Your task to perform on an android device: Open Amazon Image 0: 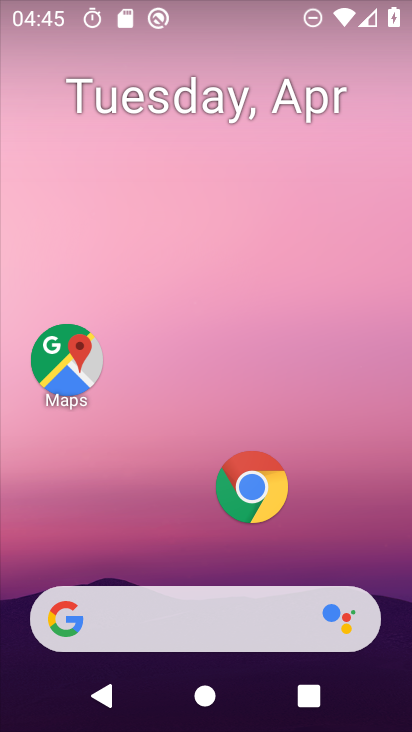
Step 0: drag from (207, 397) to (284, 56)
Your task to perform on an android device: Open Amazon Image 1: 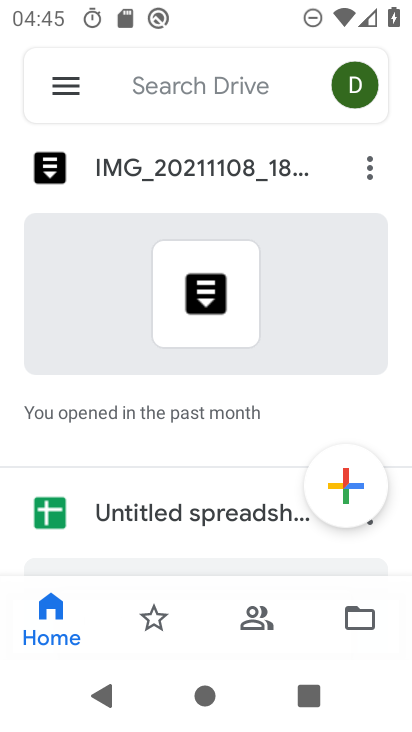
Step 1: press home button
Your task to perform on an android device: Open Amazon Image 2: 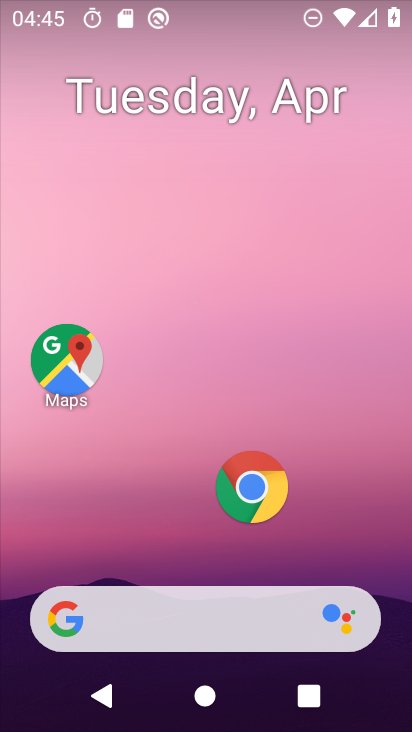
Step 2: click (249, 489)
Your task to perform on an android device: Open Amazon Image 3: 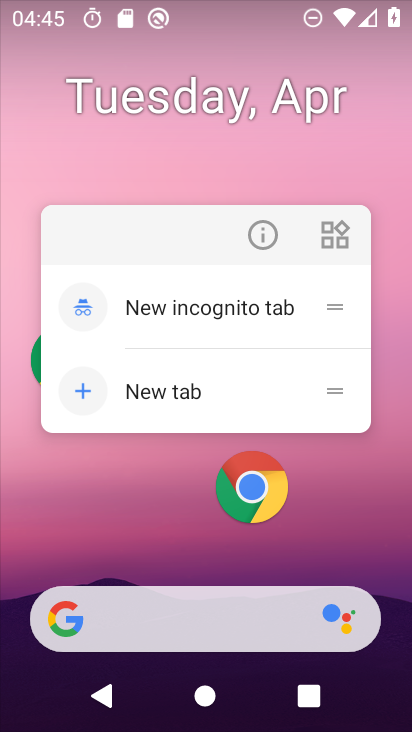
Step 3: click (255, 488)
Your task to perform on an android device: Open Amazon Image 4: 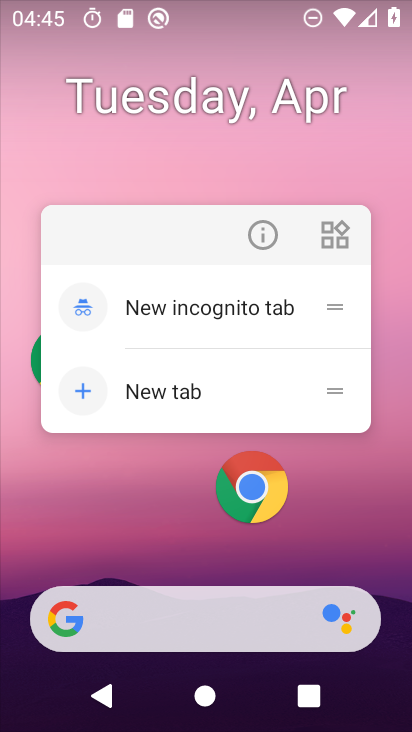
Step 4: click (264, 489)
Your task to perform on an android device: Open Amazon Image 5: 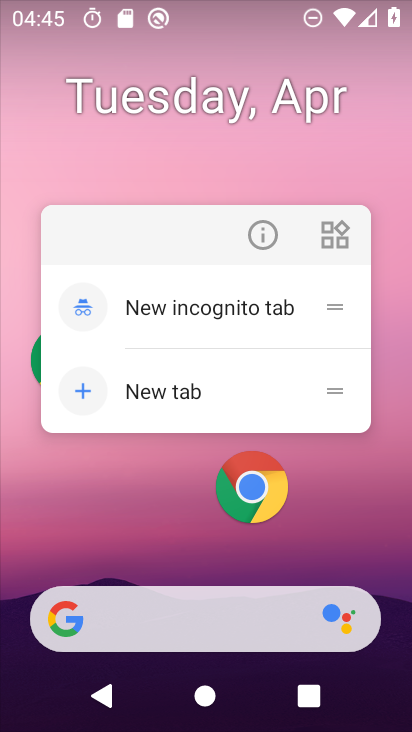
Step 5: click (257, 483)
Your task to perform on an android device: Open Amazon Image 6: 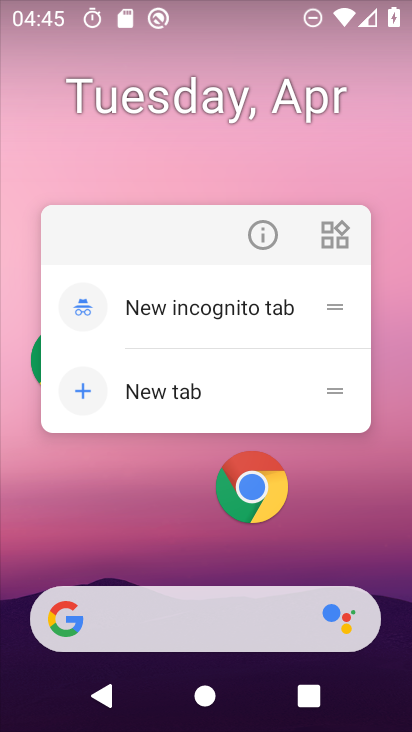
Step 6: click (250, 476)
Your task to perform on an android device: Open Amazon Image 7: 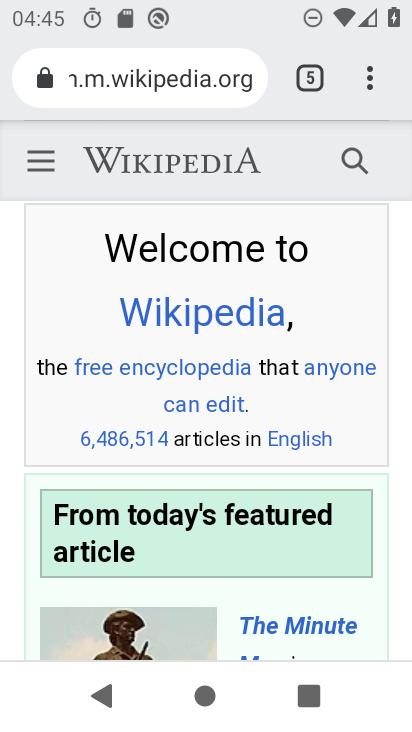
Step 7: click (307, 76)
Your task to perform on an android device: Open Amazon Image 8: 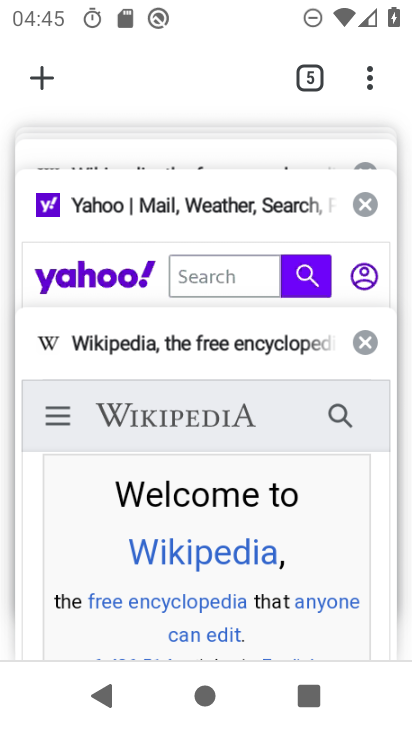
Step 8: click (50, 71)
Your task to perform on an android device: Open Amazon Image 9: 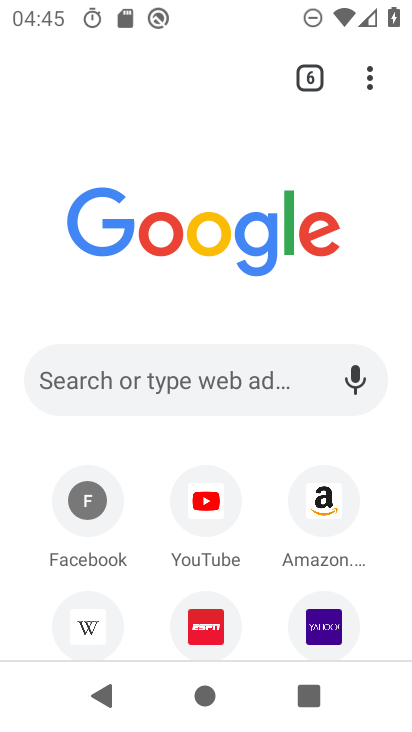
Step 9: click (321, 495)
Your task to perform on an android device: Open Amazon Image 10: 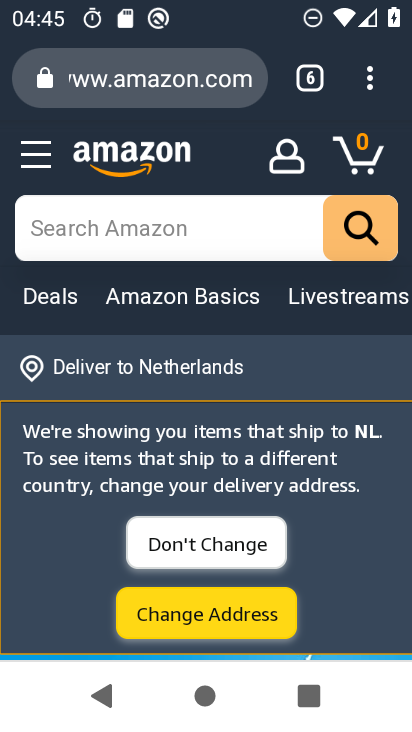
Step 10: task complete